Your task to perform on an android device: Check the news Image 0: 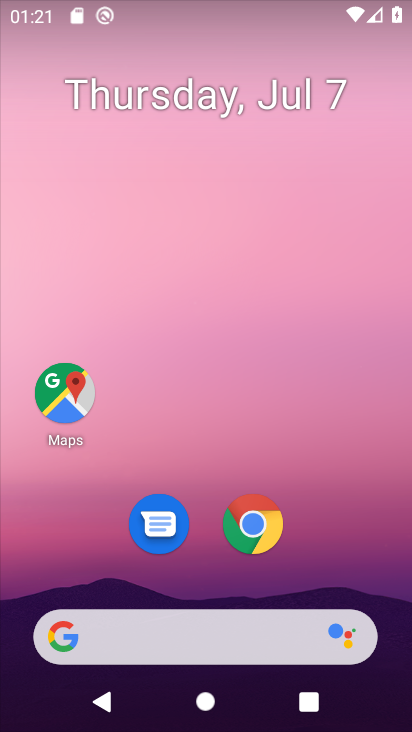
Step 0: click (231, 639)
Your task to perform on an android device: Check the news Image 1: 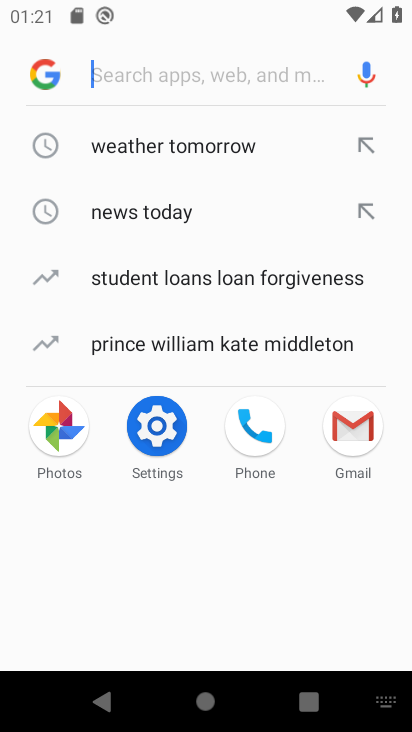
Step 1: click (177, 214)
Your task to perform on an android device: Check the news Image 2: 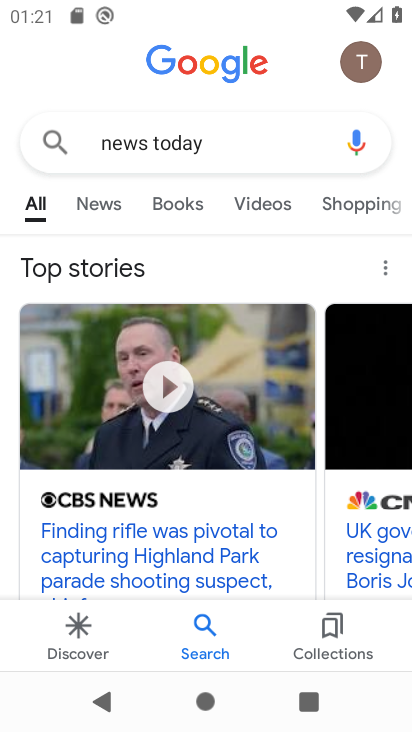
Step 2: task complete